Your task to perform on an android device: uninstall "Google Home" Image 0: 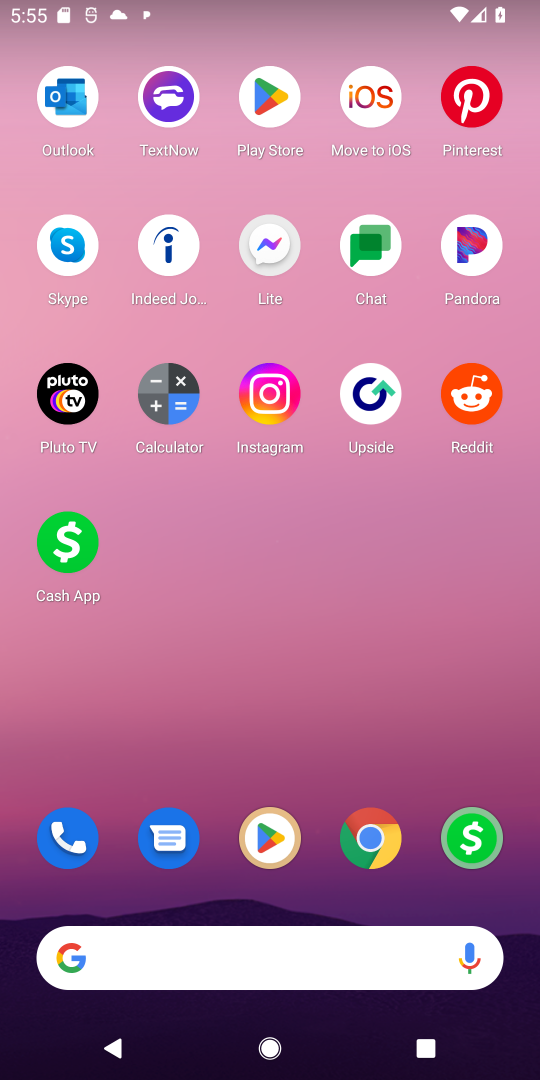
Step 0: click (264, 101)
Your task to perform on an android device: uninstall "Google Home" Image 1: 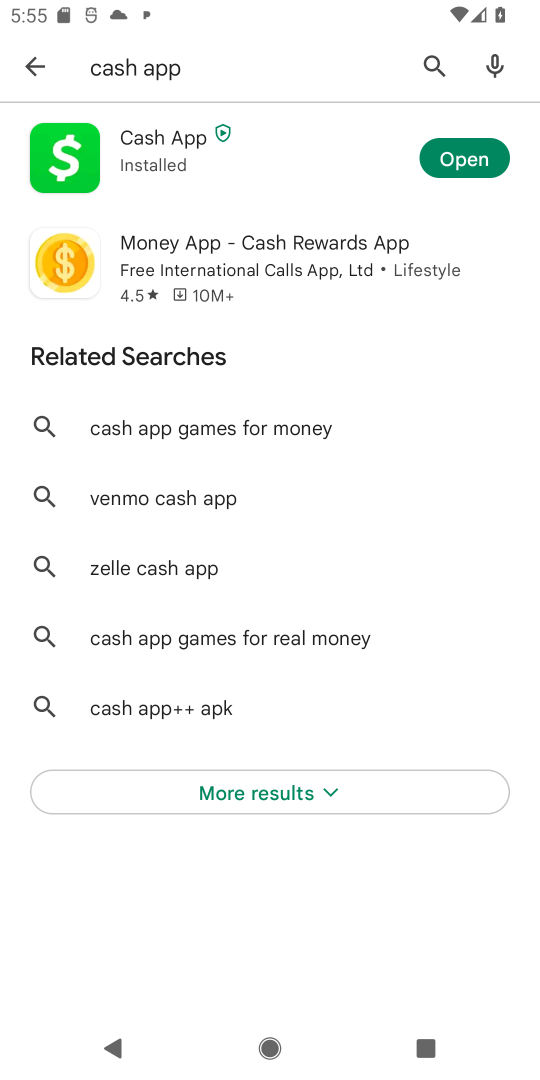
Step 1: click (432, 62)
Your task to perform on an android device: uninstall "Google Home" Image 2: 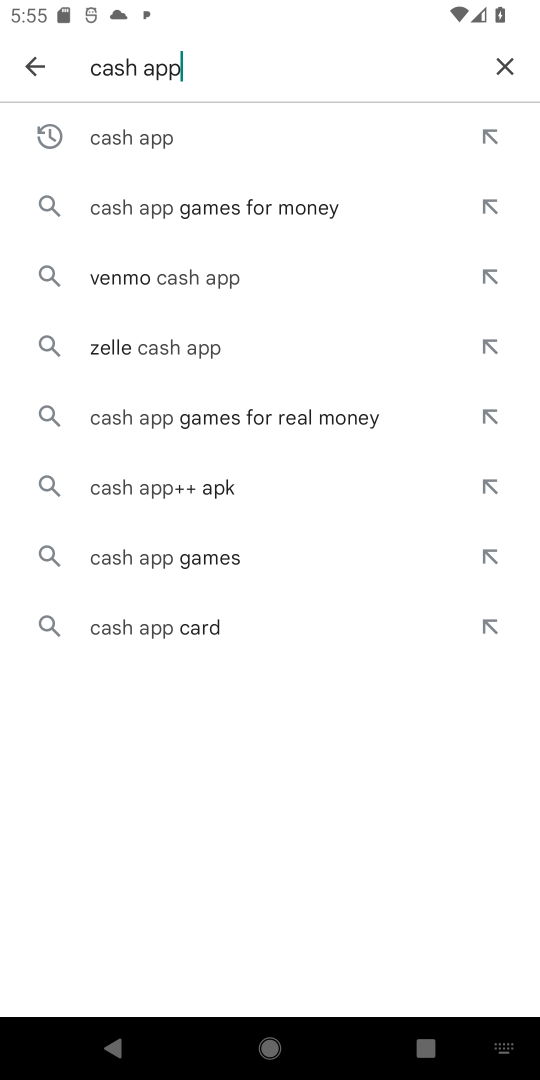
Step 2: click (504, 59)
Your task to perform on an android device: uninstall "Google Home" Image 3: 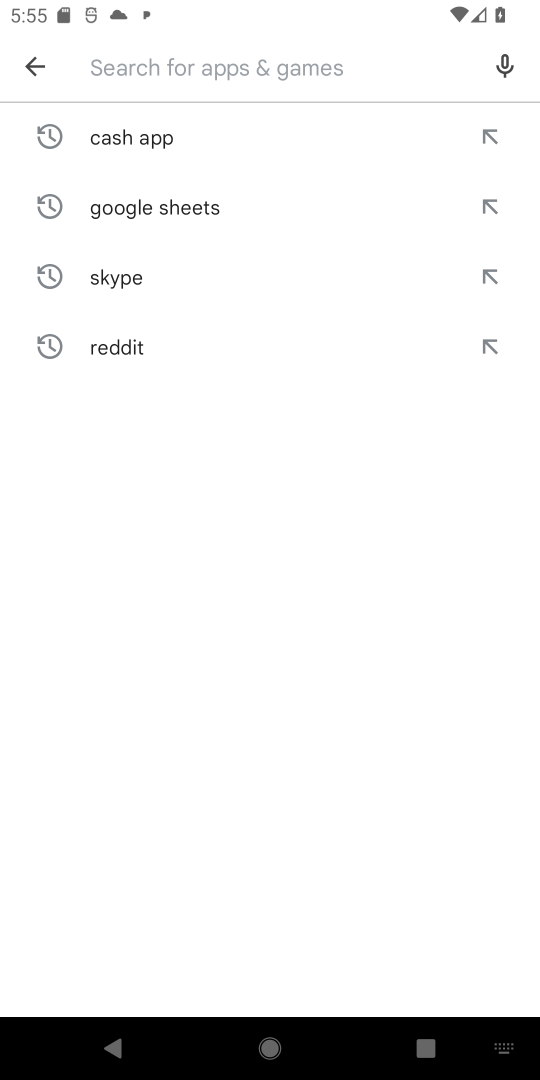
Step 3: type "Google Home"
Your task to perform on an android device: uninstall "Google Home" Image 4: 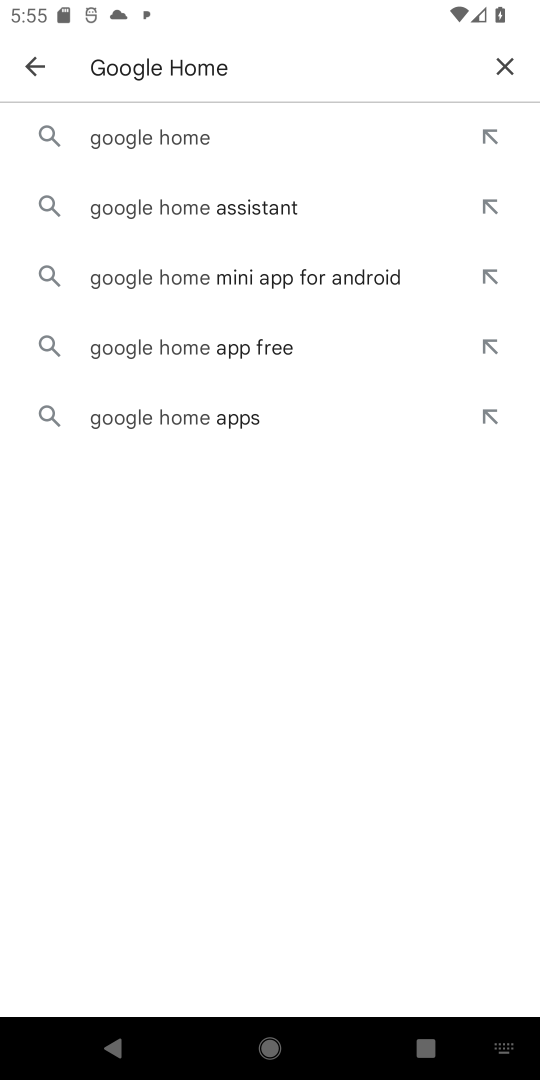
Step 4: click (135, 136)
Your task to perform on an android device: uninstall "Google Home" Image 5: 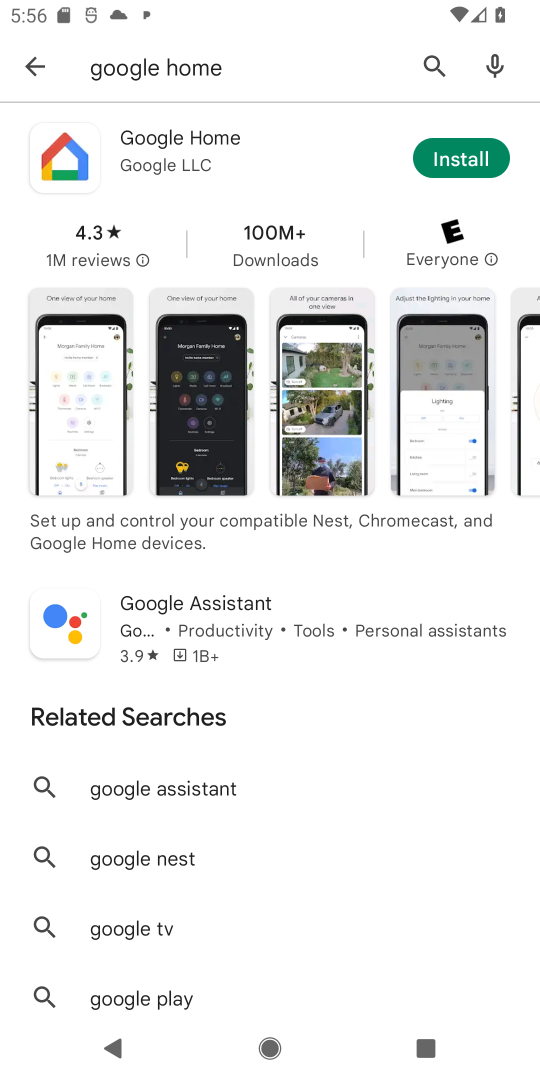
Step 5: task complete